Your task to perform on an android device: turn on showing notifications on the lock screen Image 0: 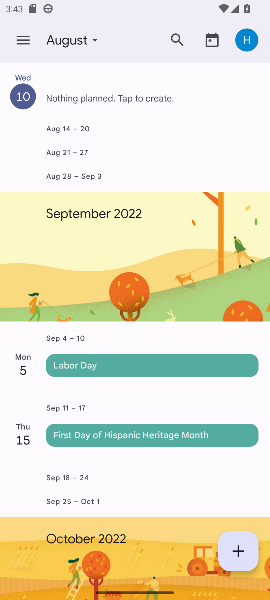
Step 0: press home button
Your task to perform on an android device: turn on showing notifications on the lock screen Image 1: 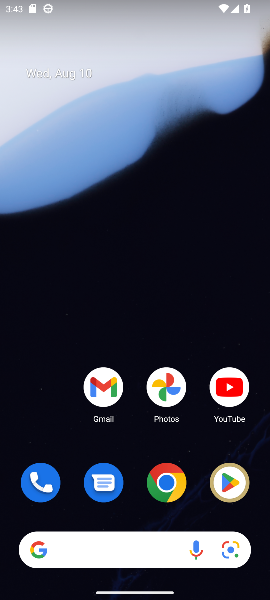
Step 1: drag from (145, 510) to (131, 42)
Your task to perform on an android device: turn on showing notifications on the lock screen Image 2: 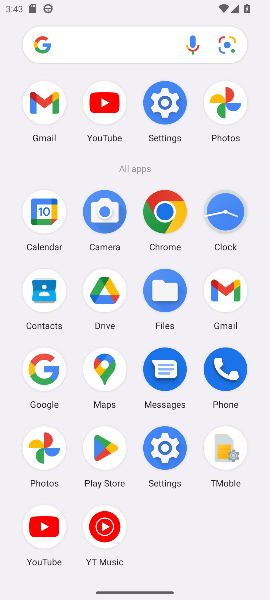
Step 2: click (160, 443)
Your task to perform on an android device: turn on showing notifications on the lock screen Image 3: 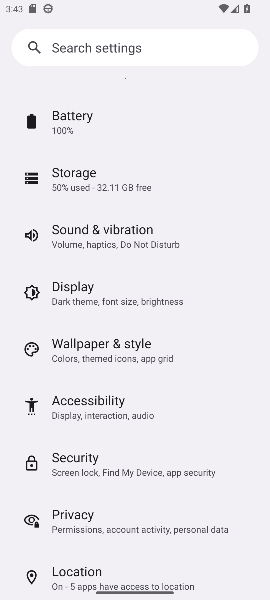
Step 3: drag from (172, 523) to (213, 215)
Your task to perform on an android device: turn on showing notifications on the lock screen Image 4: 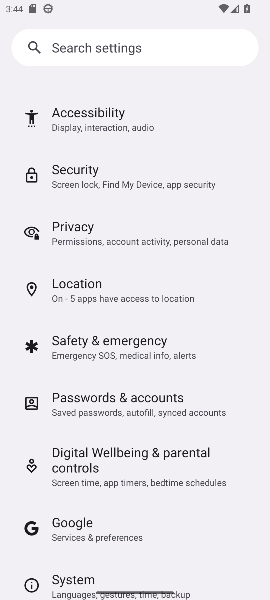
Step 4: drag from (138, 167) to (116, 470)
Your task to perform on an android device: turn on showing notifications on the lock screen Image 5: 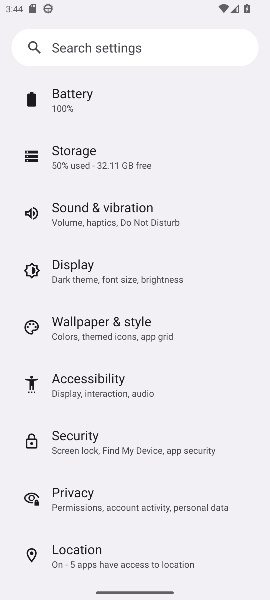
Step 5: drag from (150, 149) to (141, 423)
Your task to perform on an android device: turn on showing notifications on the lock screen Image 6: 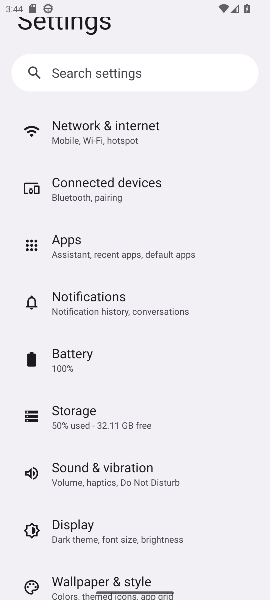
Step 6: click (99, 292)
Your task to perform on an android device: turn on showing notifications on the lock screen Image 7: 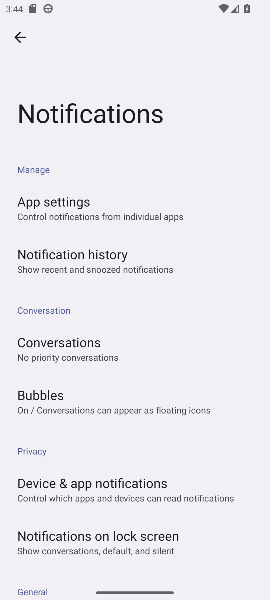
Step 7: drag from (161, 505) to (122, 189)
Your task to perform on an android device: turn on showing notifications on the lock screen Image 8: 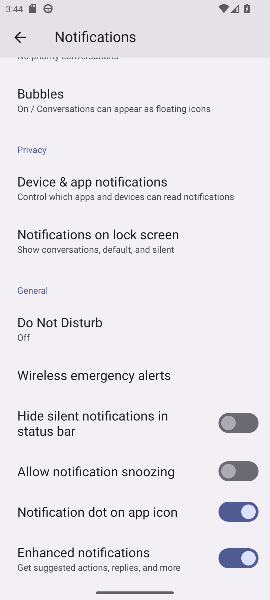
Step 8: click (60, 232)
Your task to perform on an android device: turn on showing notifications on the lock screen Image 9: 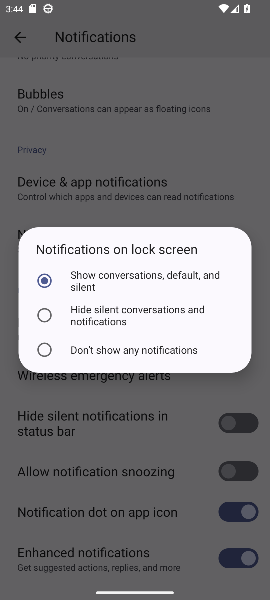
Step 9: click (109, 343)
Your task to perform on an android device: turn on showing notifications on the lock screen Image 10: 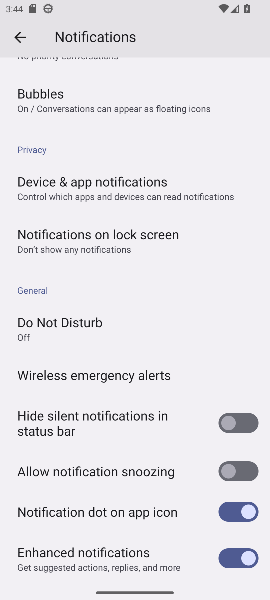
Step 10: click (108, 235)
Your task to perform on an android device: turn on showing notifications on the lock screen Image 11: 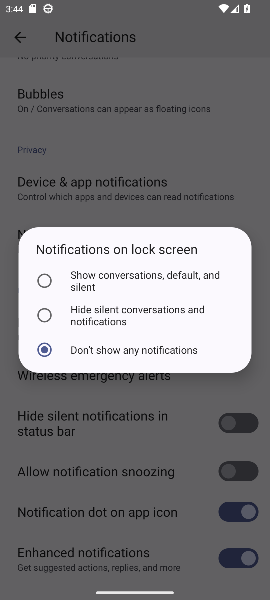
Step 11: click (83, 278)
Your task to perform on an android device: turn on showing notifications on the lock screen Image 12: 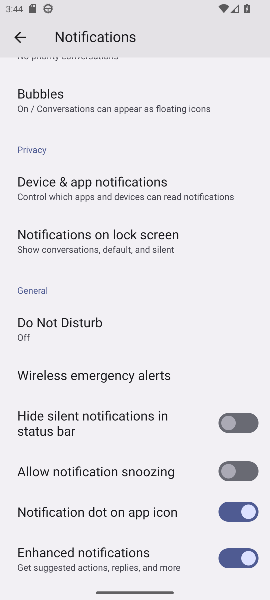
Step 12: task complete